Your task to perform on an android device: make emails show in primary in the gmail app Image 0: 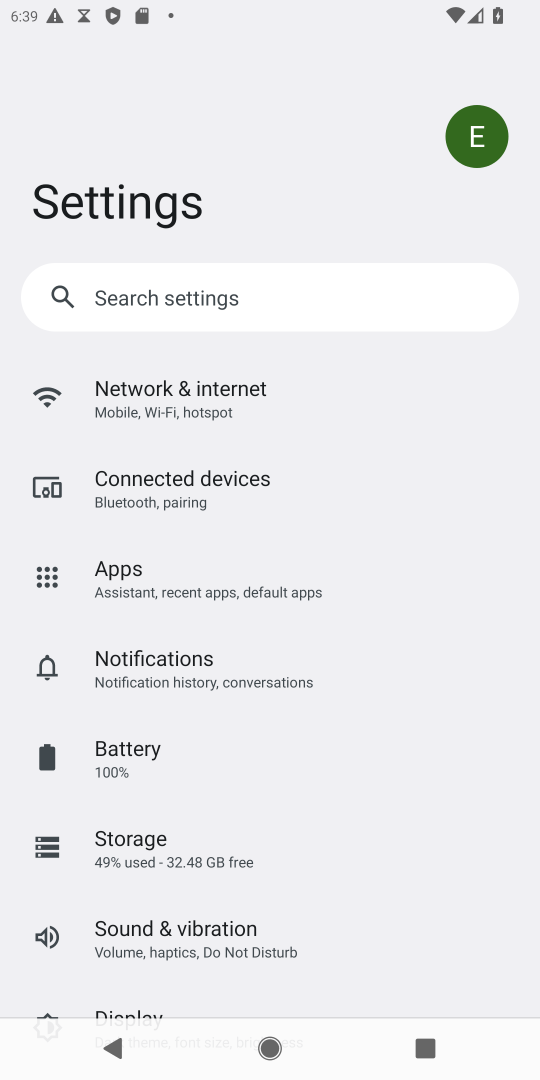
Step 0: press home button
Your task to perform on an android device: make emails show in primary in the gmail app Image 1: 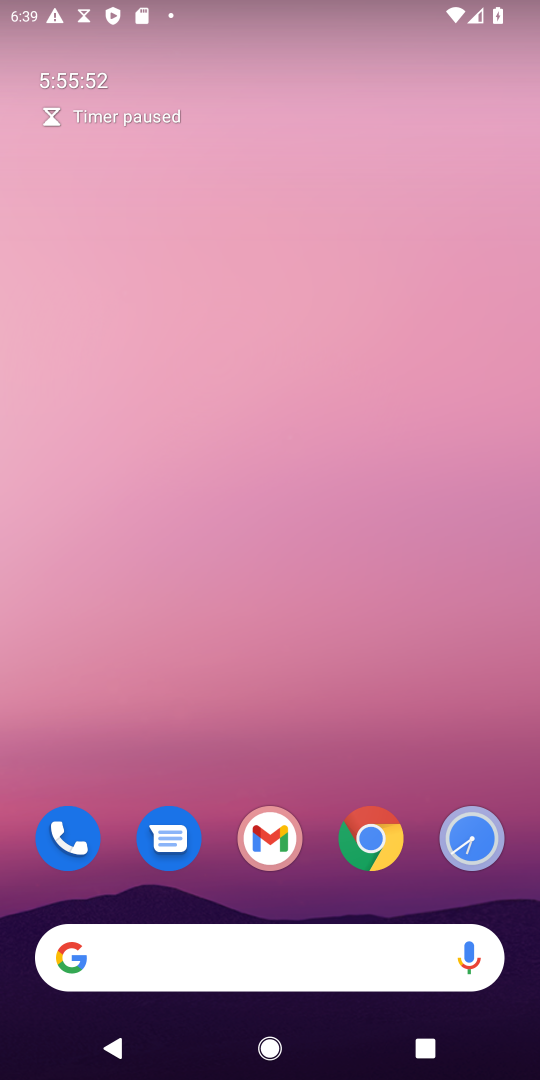
Step 1: drag from (246, 755) to (392, 0)
Your task to perform on an android device: make emails show in primary in the gmail app Image 2: 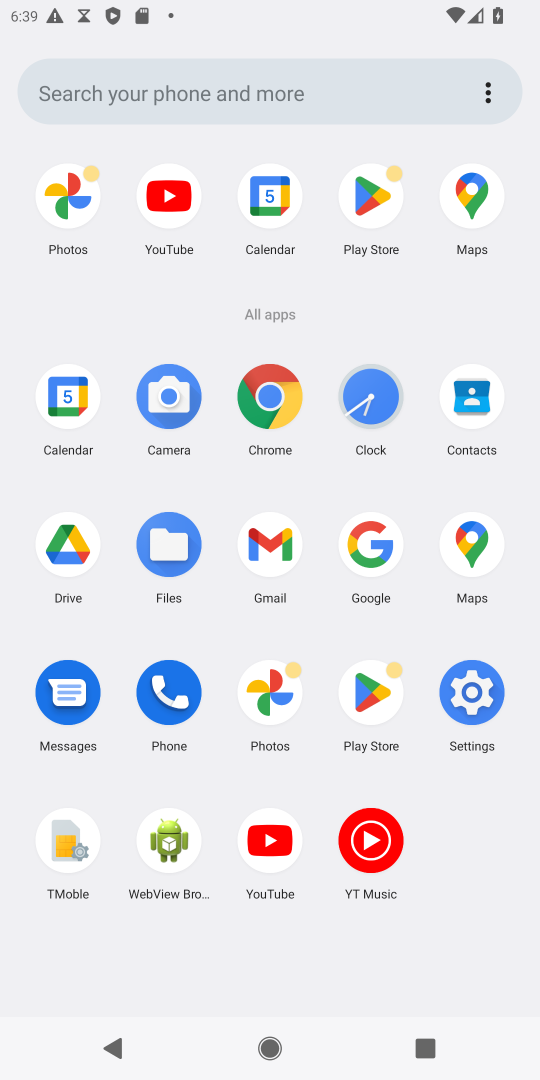
Step 2: click (270, 547)
Your task to perform on an android device: make emails show in primary in the gmail app Image 3: 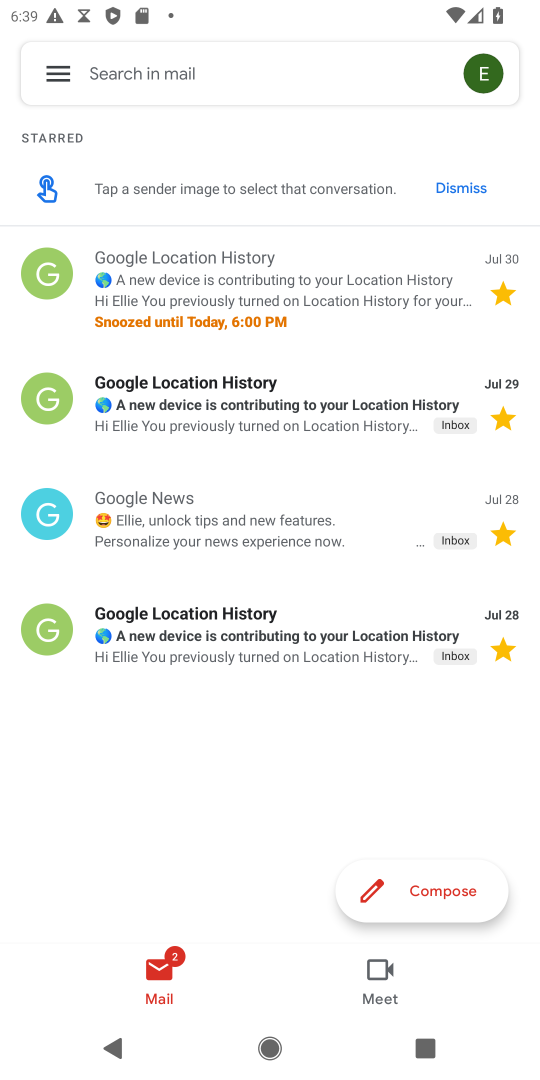
Step 3: click (50, 68)
Your task to perform on an android device: make emails show in primary in the gmail app Image 4: 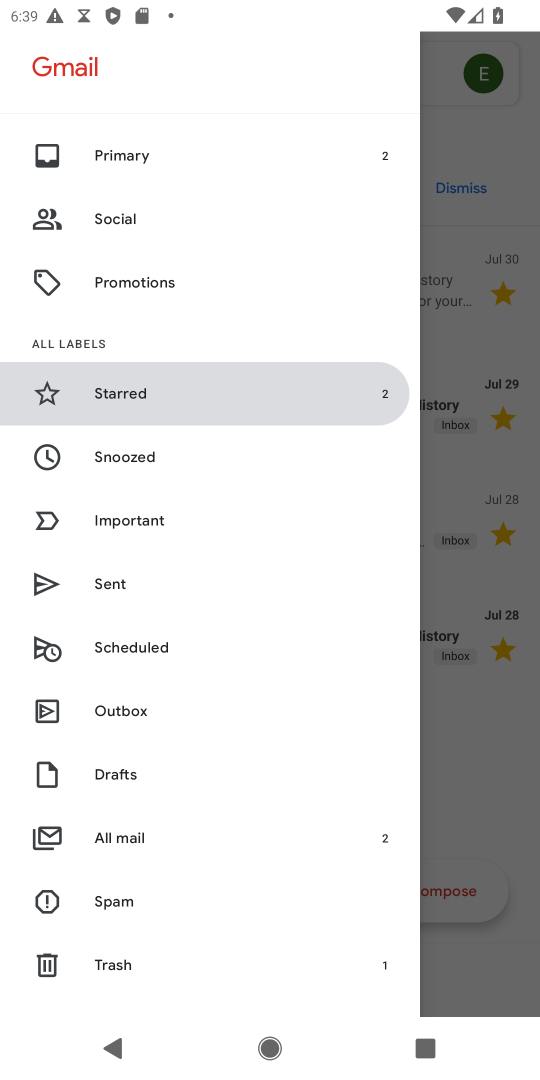
Step 4: drag from (153, 912) to (239, 189)
Your task to perform on an android device: make emails show in primary in the gmail app Image 5: 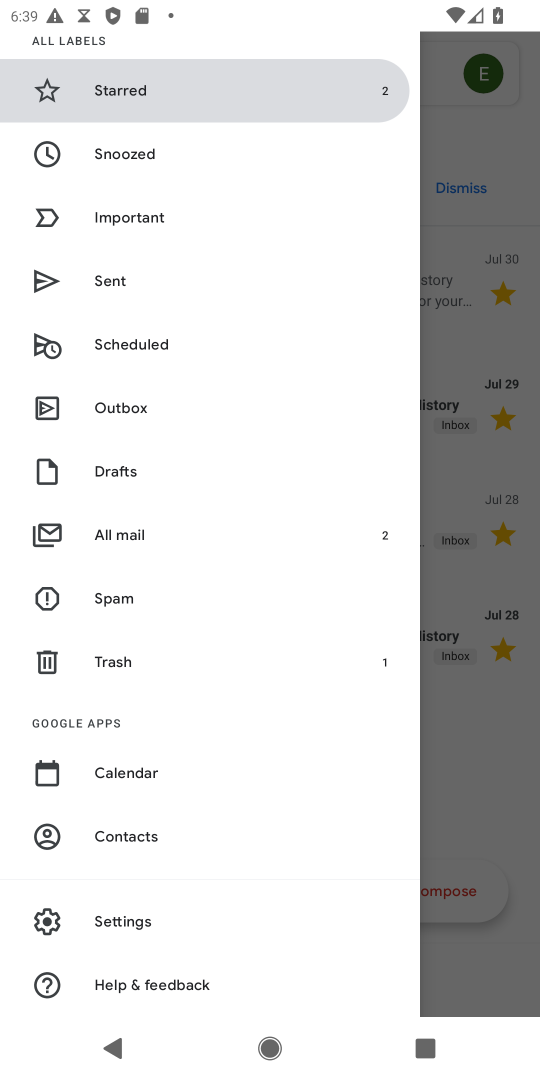
Step 5: click (108, 922)
Your task to perform on an android device: make emails show in primary in the gmail app Image 6: 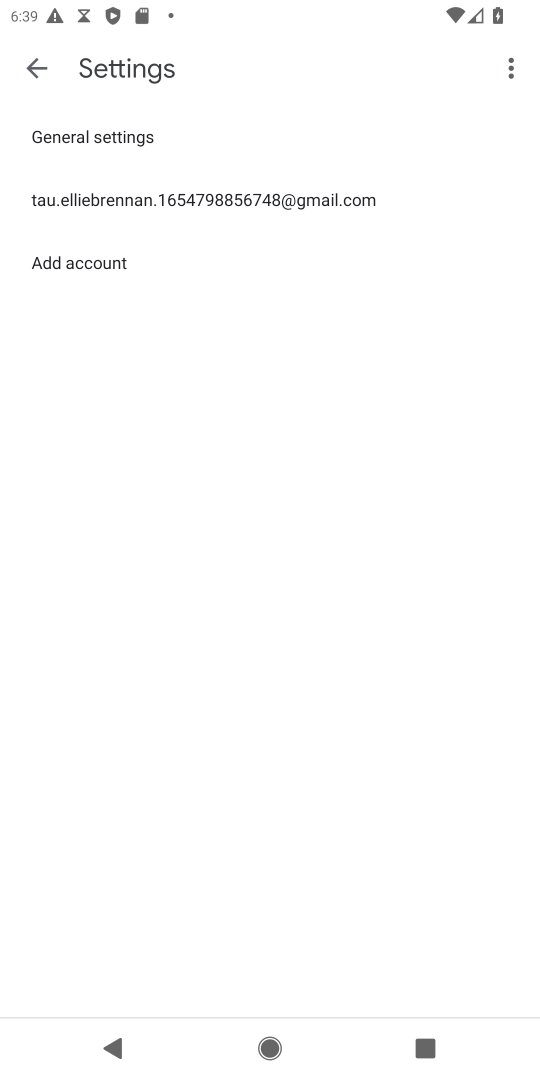
Step 6: click (62, 193)
Your task to perform on an android device: make emails show in primary in the gmail app Image 7: 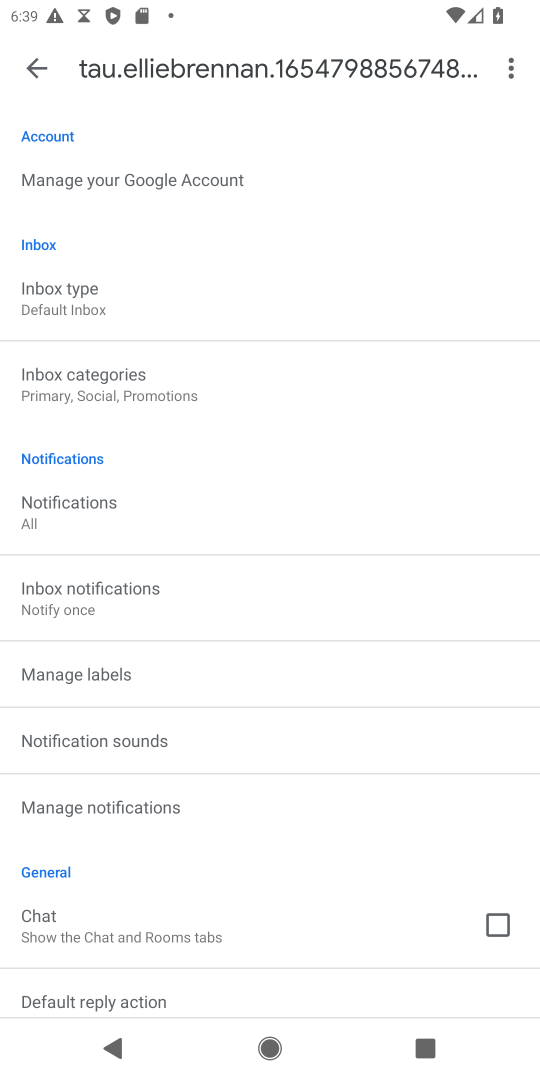
Step 7: click (73, 281)
Your task to perform on an android device: make emails show in primary in the gmail app Image 8: 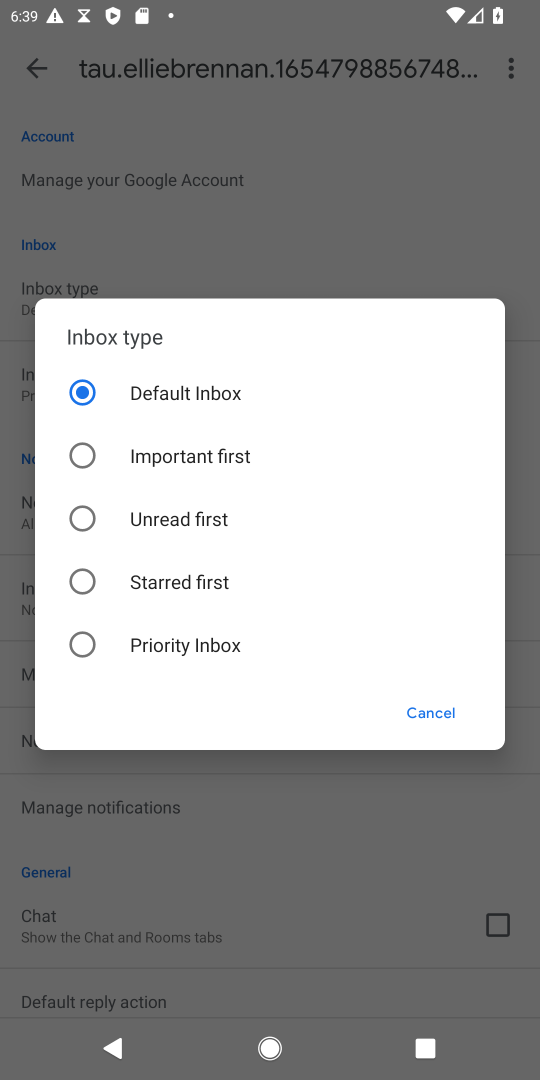
Step 8: click (424, 711)
Your task to perform on an android device: make emails show in primary in the gmail app Image 9: 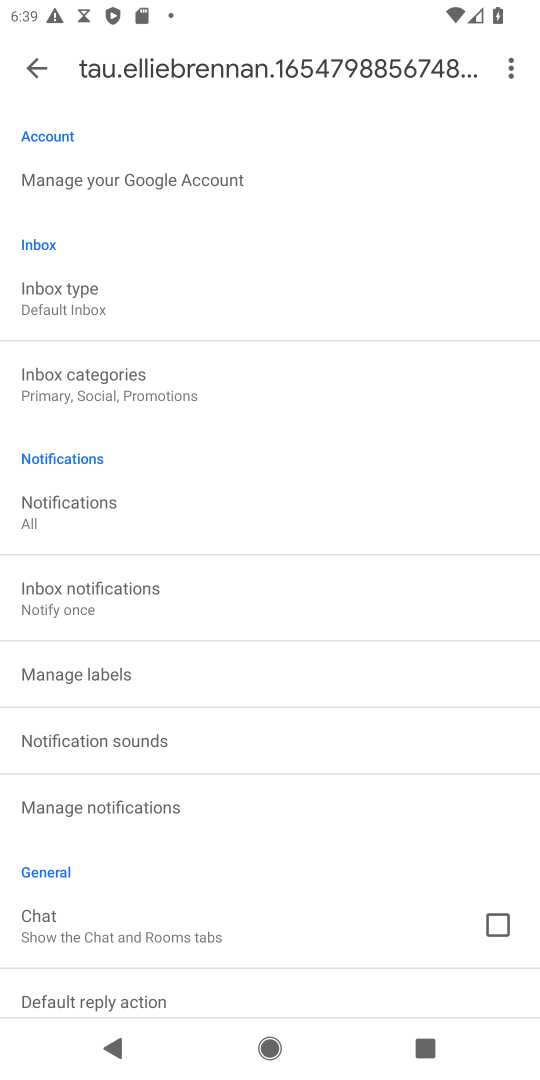
Step 9: click (86, 391)
Your task to perform on an android device: make emails show in primary in the gmail app Image 10: 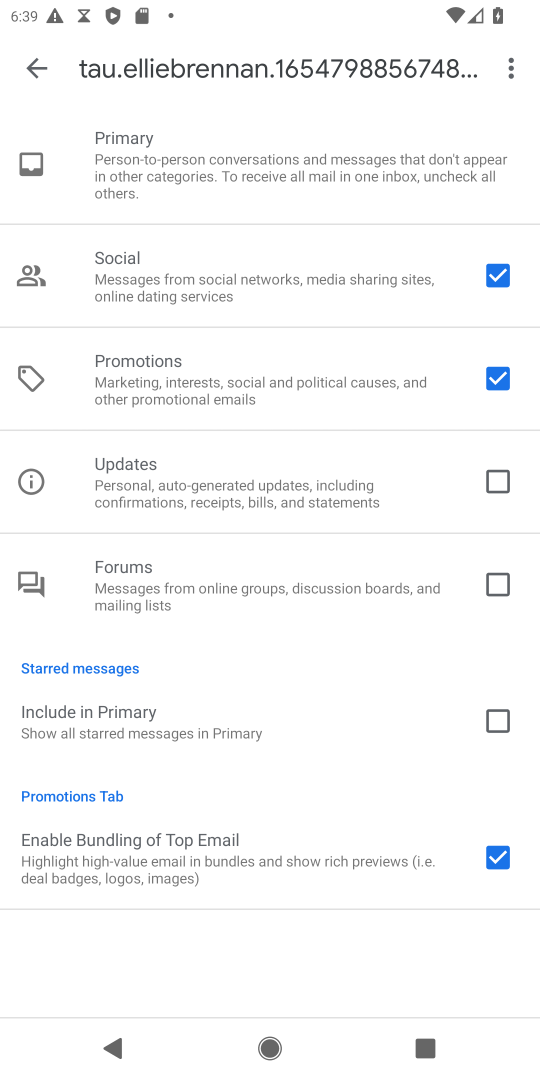
Step 10: click (501, 271)
Your task to perform on an android device: make emails show in primary in the gmail app Image 11: 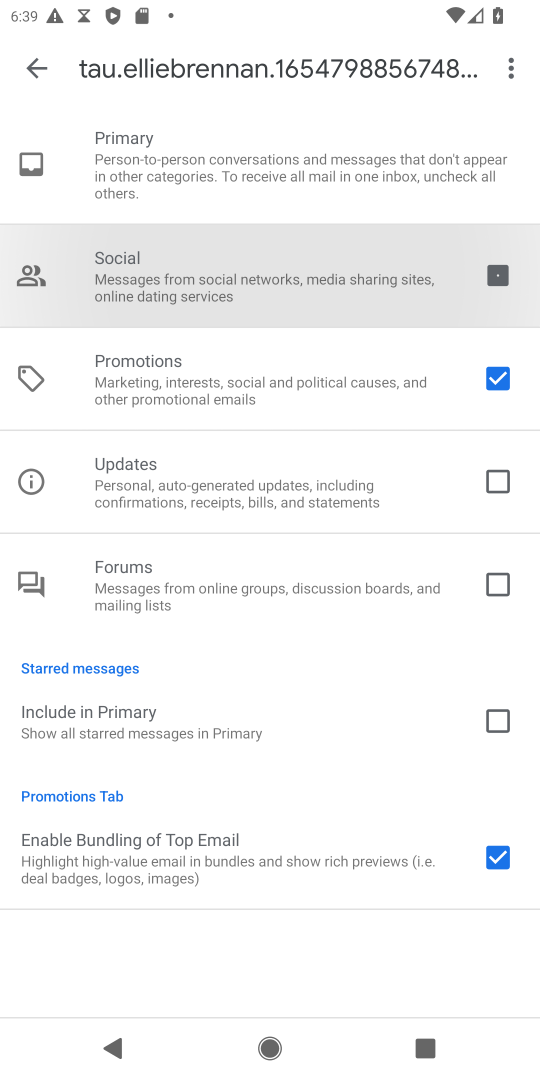
Step 11: click (492, 369)
Your task to perform on an android device: make emails show in primary in the gmail app Image 12: 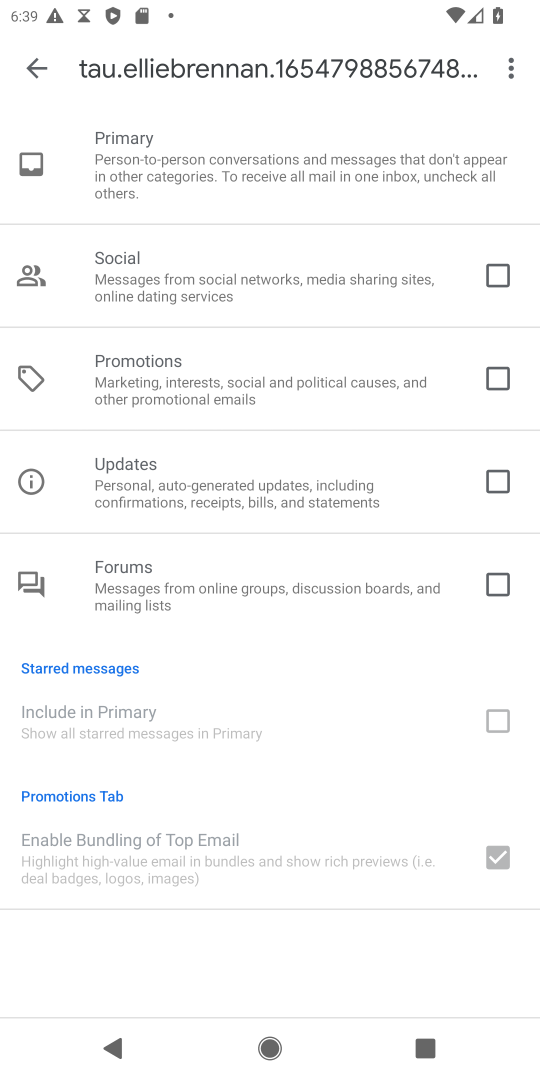
Step 12: task complete